Your task to perform on an android device: open app "Reddit" (install if not already installed), go to login, and select forgot password Image 0: 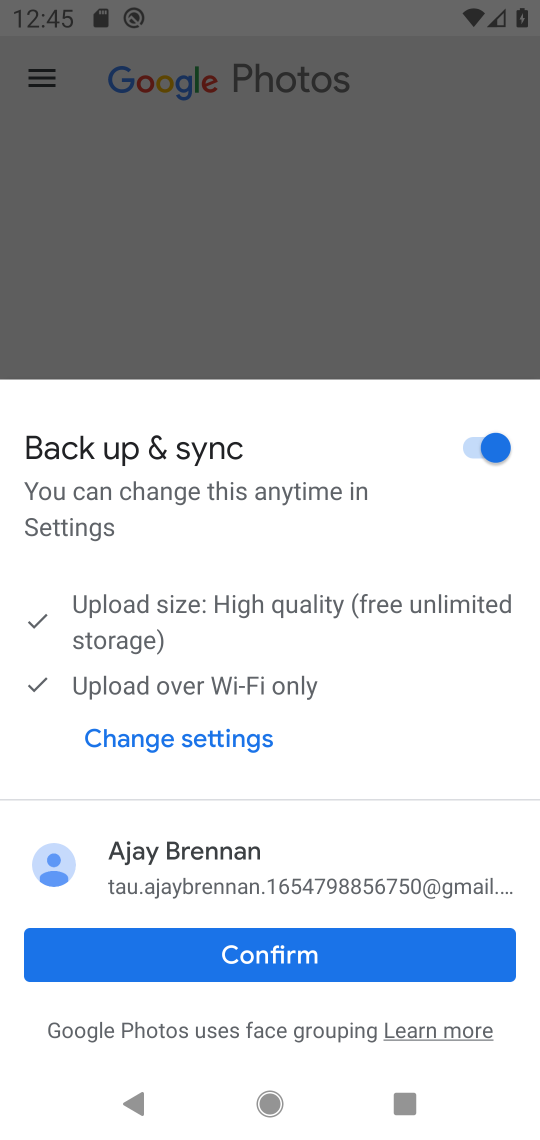
Step 0: press home button
Your task to perform on an android device: open app "Reddit" (install if not already installed), go to login, and select forgot password Image 1: 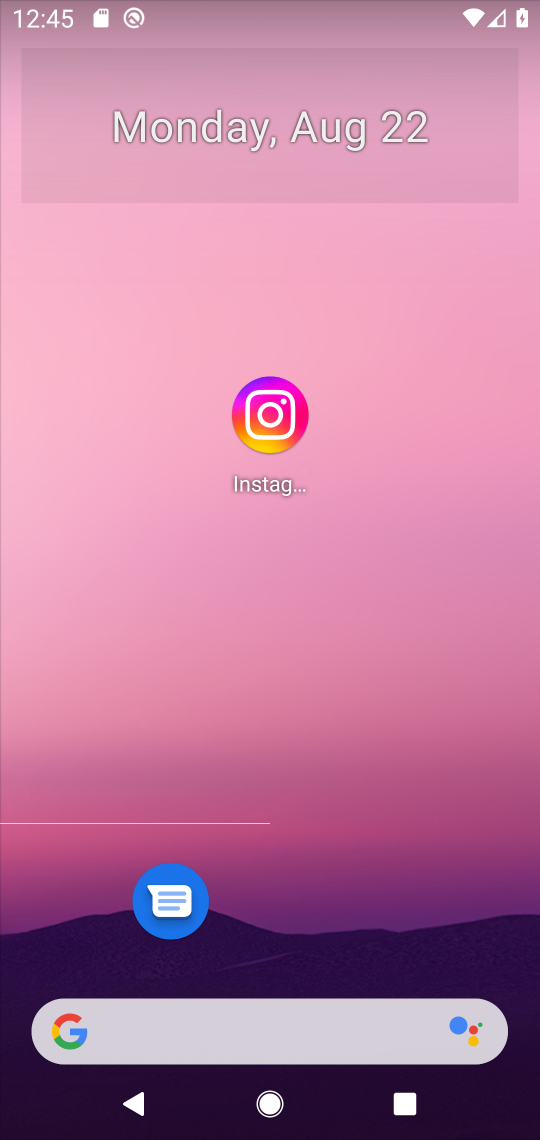
Step 1: drag from (350, 940) to (386, 60)
Your task to perform on an android device: open app "Reddit" (install if not already installed), go to login, and select forgot password Image 2: 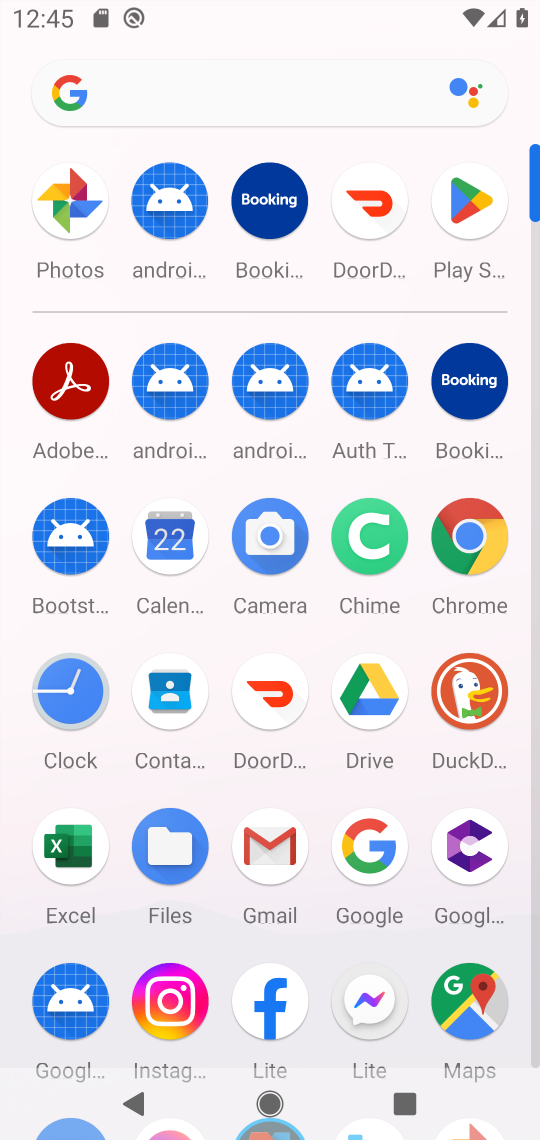
Step 2: click (457, 257)
Your task to perform on an android device: open app "Reddit" (install if not already installed), go to login, and select forgot password Image 3: 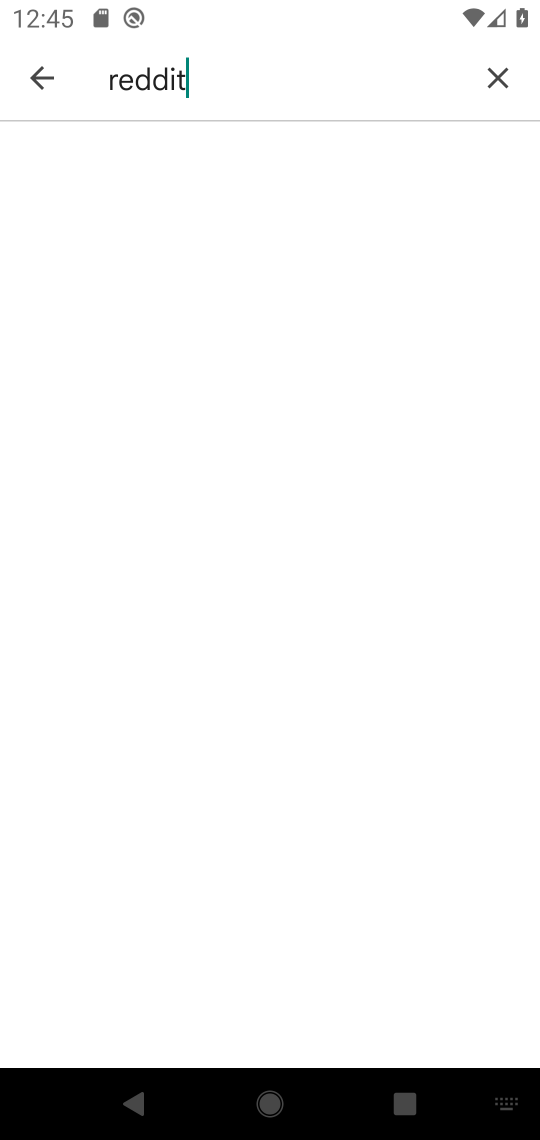
Step 3: click (487, 86)
Your task to perform on an android device: open app "Reddit" (install if not already installed), go to login, and select forgot password Image 4: 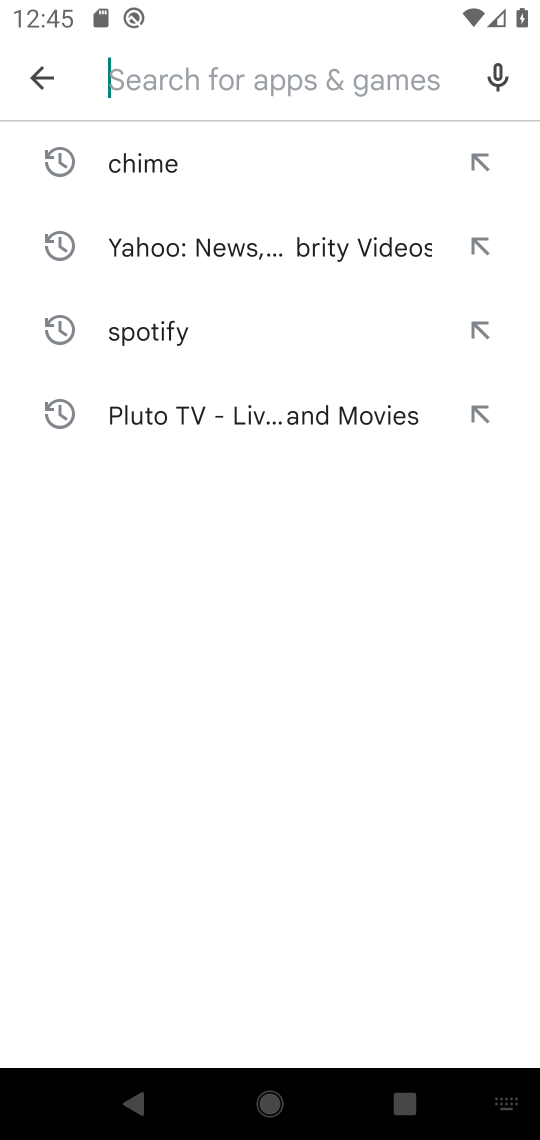
Step 4: type "reddit"
Your task to perform on an android device: open app "Reddit" (install if not already installed), go to login, and select forgot password Image 5: 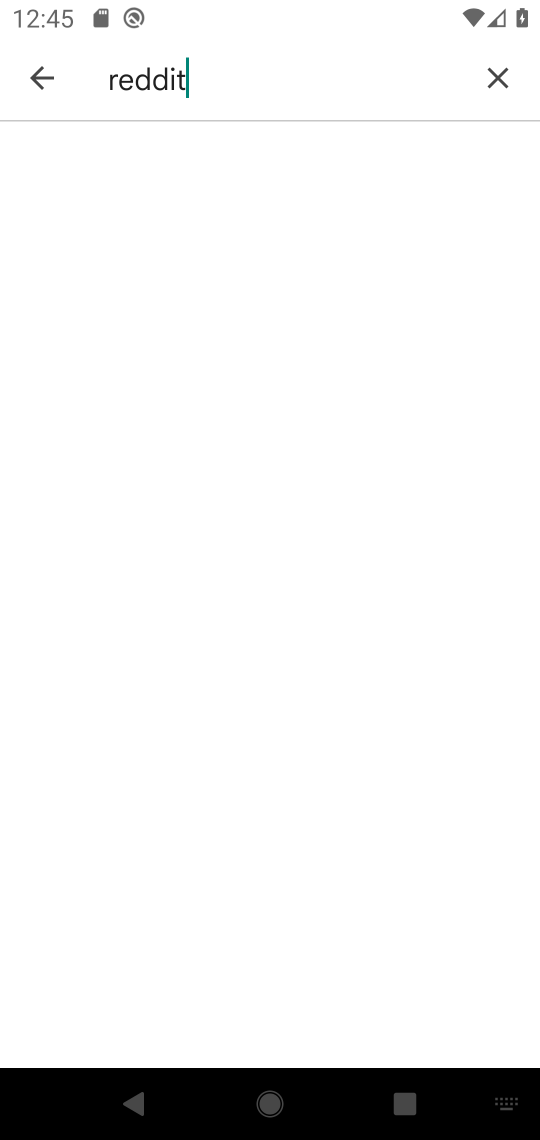
Step 5: task complete